Your task to perform on an android device: turn on location history Image 0: 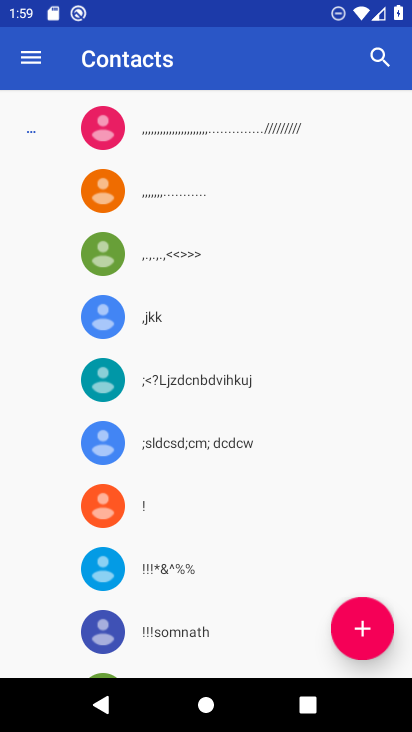
Step 0: press back button
Your task to perform on an android device: turn on location history Image 1: 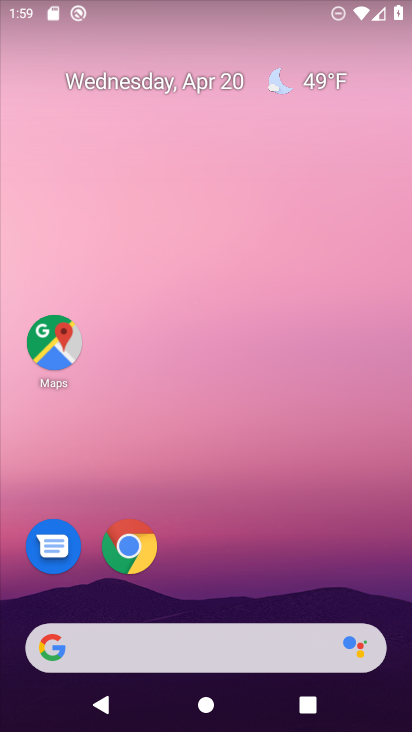
Step 1: drag from (197, 549) to (310, 0)
Your task to perform on an android device: turn on location history Image 2: 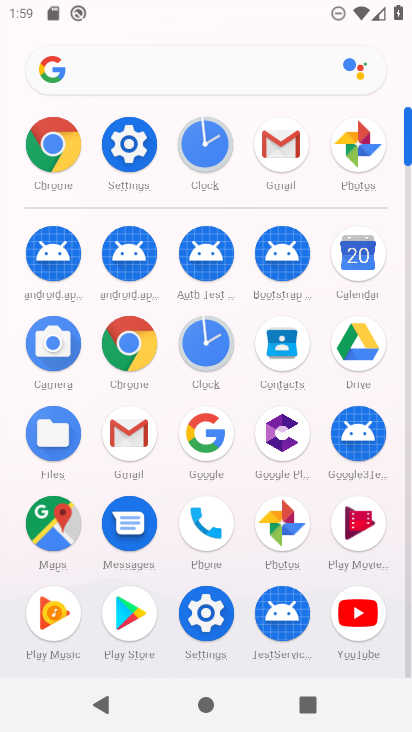
Step 2: click (125, 155)
Your task to perform on an android device: turn on location history Image 3: 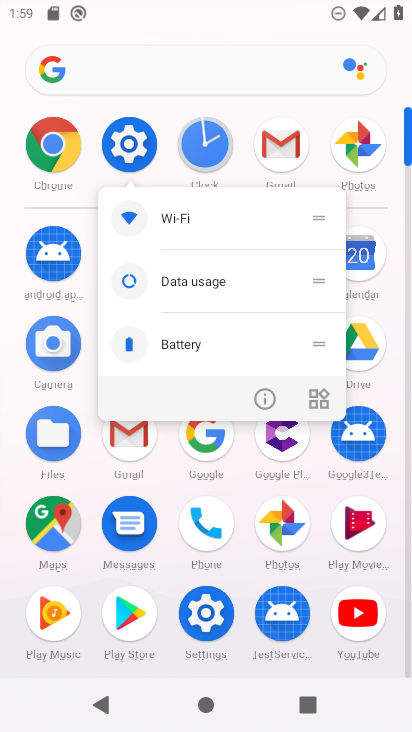
Step 3: click (137, 144)
Your task to perform on an android device: turn on location history Image 4: 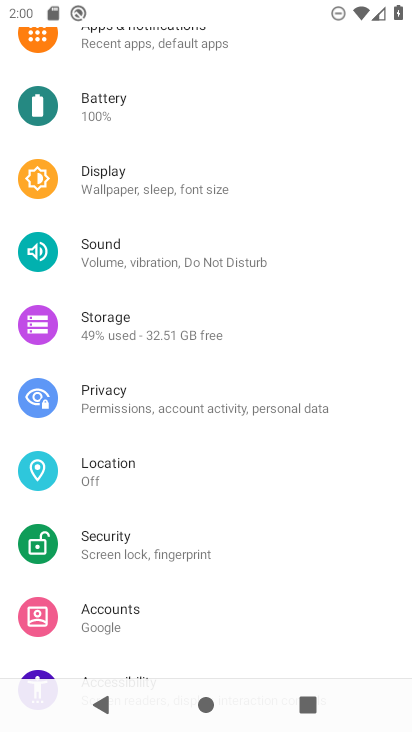
Step 4: click (166, 479)
Your task to perform on an android device: turn on location history Image 5: 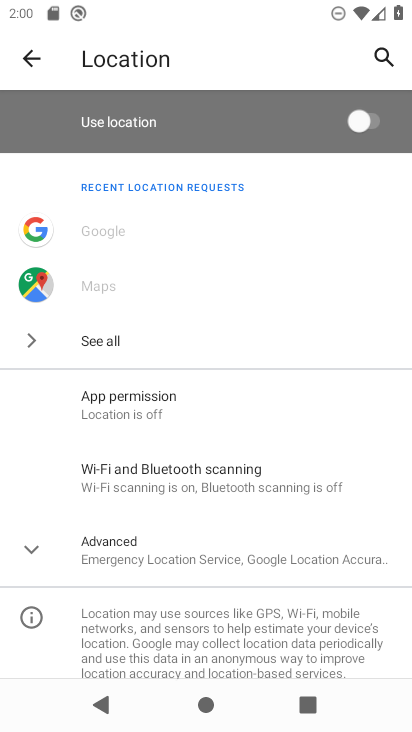
Step 5: click (190, 529)
Your task to perform on an android device: turn on location history Image 6: 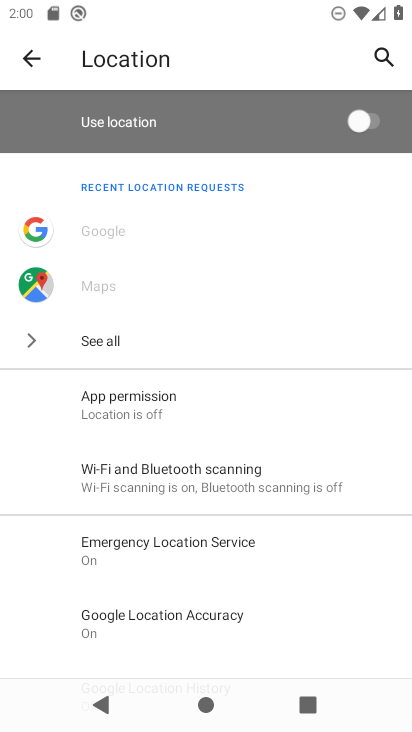
Step 6: drag from (184, 609) to (291, 199)
Your task to perform on an android device: turn on location history Image 7: 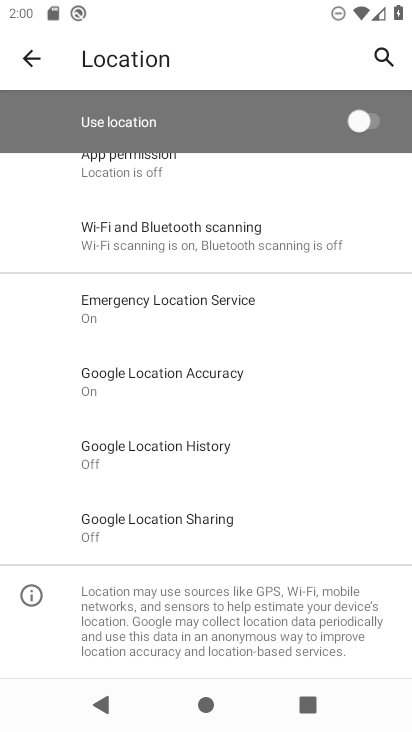
Step 7: click (199, 457)
Your task to perform on an android device: turn on location history Image 8: 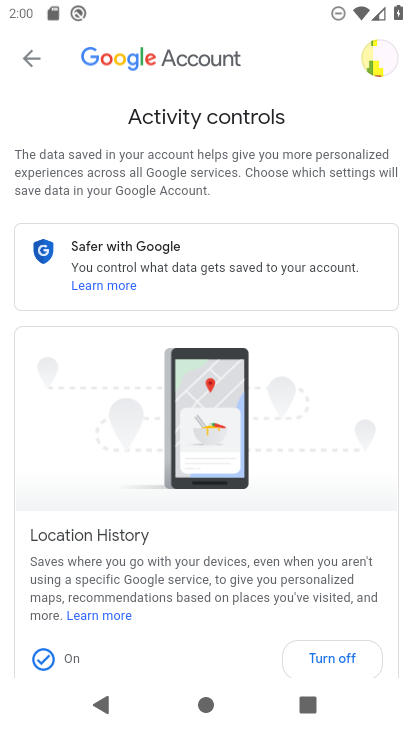
Step 8: task complete